Your task to perform on an android device: star an email in the gmail app Image 0: 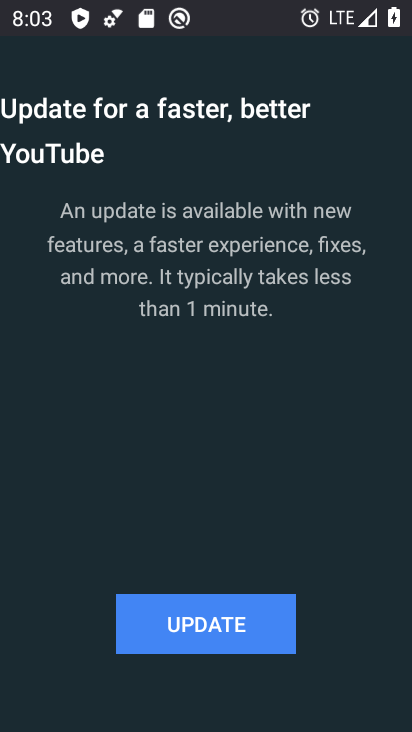
Step 0: press home button
Your task to perform on an android device: star an email in the gmail app Image 1: 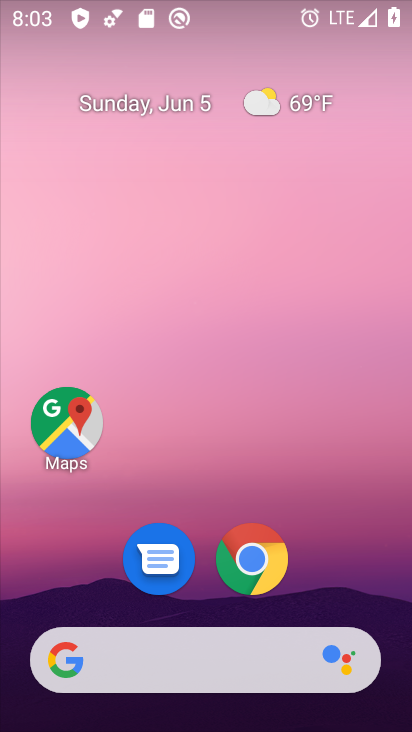
Step 1: drag from (328, 550) to (270, 88)
Your task to perform on an android device: star an email in the gmail app Image 2: 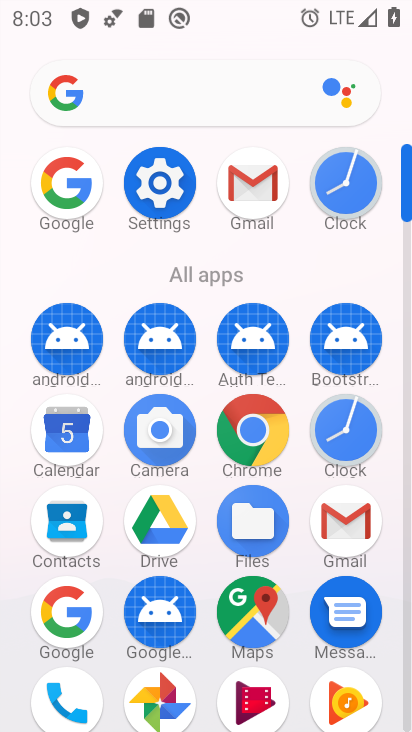
Step 2: click (234, 193)
Your task to perform on an android device: star an email in the gmail app Image 3: 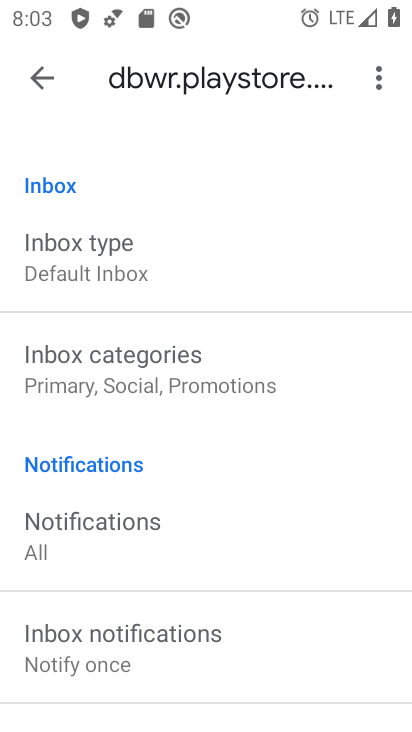
Step 3: click (34, 83)
Your task to perform on an android device: star an email in the gmail app Image 4: 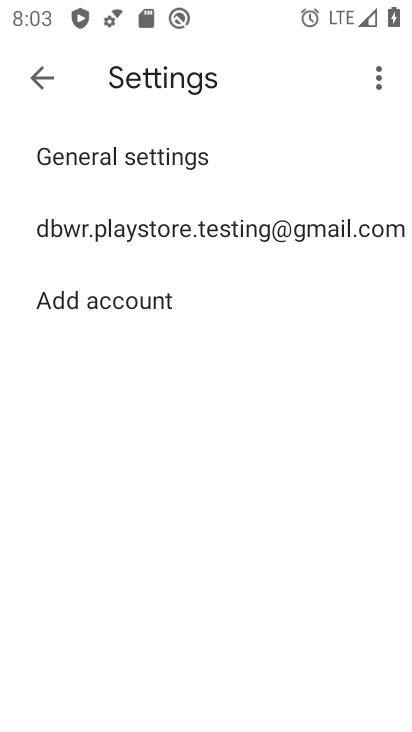
Step 4: click (52, 78)
Your task to perform on an android device: star an email in the gmail app Image 5: 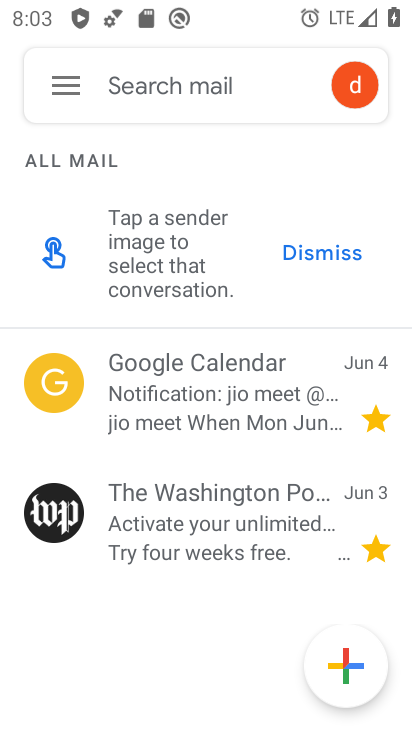
Step 5: click (65, 80)
Your task to perform on an android device: star an email in the gmail app Image 6: 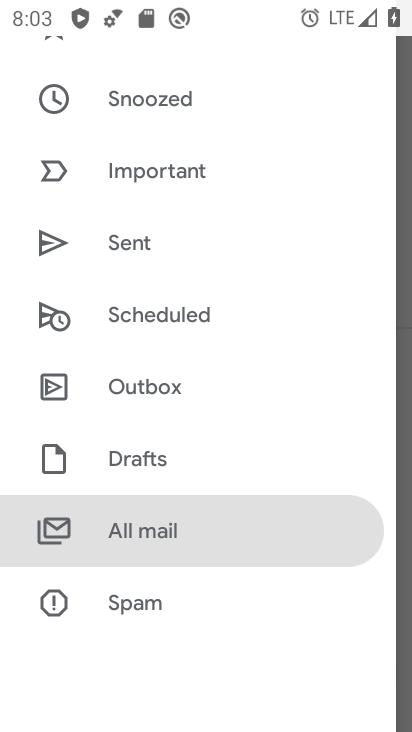
Step 6: click (113, 537)
Your task to perform on an android device: star an email in the gmail app Image 7: 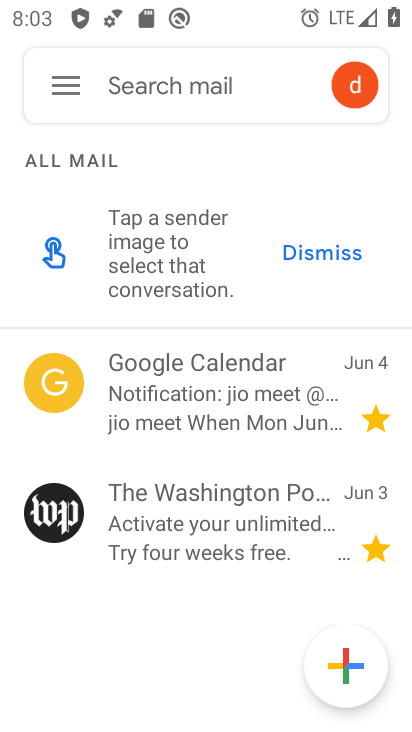
Step 7: task complete